Your task to perform on an android device: open a new tab in the chrome app Image 0: 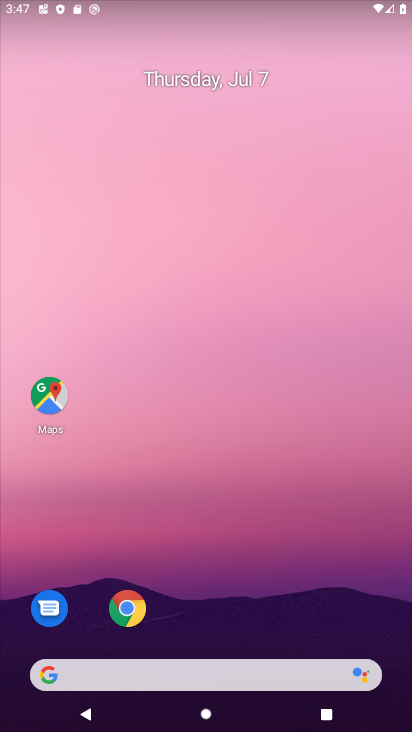
Step 0: press home button
Your task to perform on an android device: open a new tab in the chrome app Image 1: 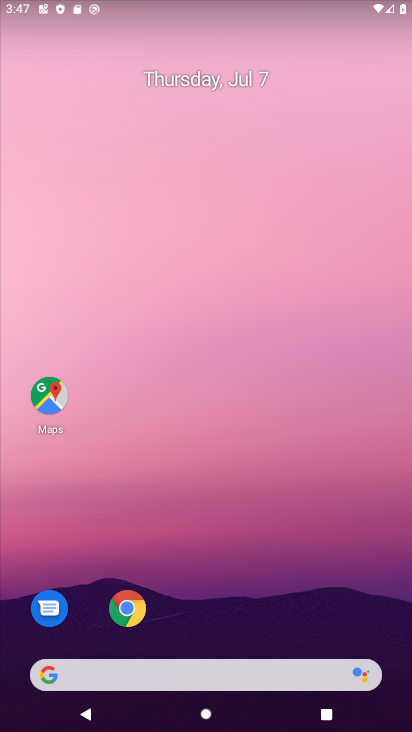
Step 1: drag from (273, 600) to (142, 163)
Your task to perform on an android device: open a new tab in the chrome app Image 2: 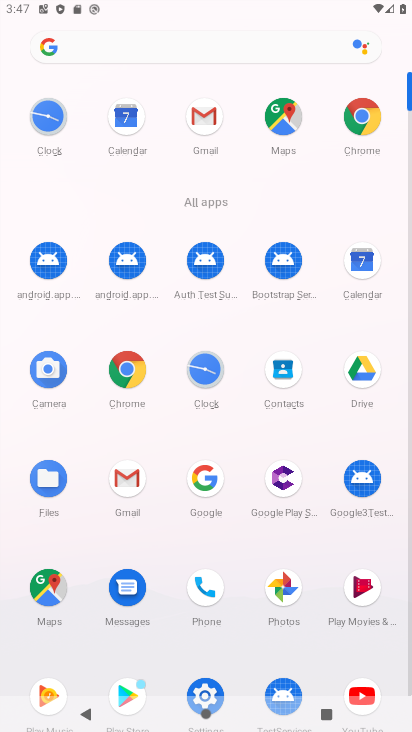
Step 2: click (364, 125)
Your task to perform on an android device: open a new tab in the chrome app Image 3: 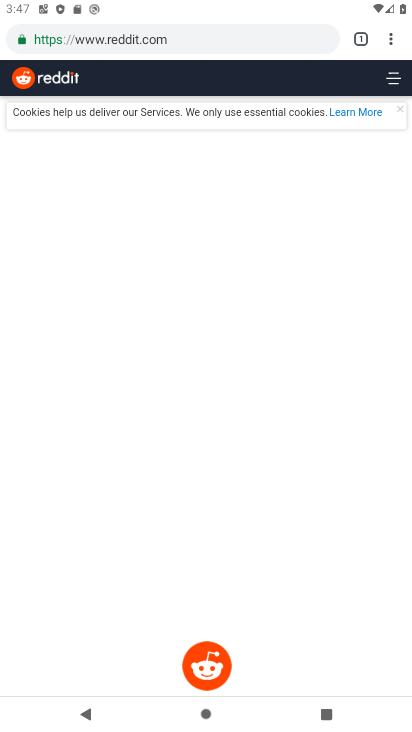
Step 3: click (395, 28)
Your task to perform on an android device: open a new tab in the chrome app Image 4: 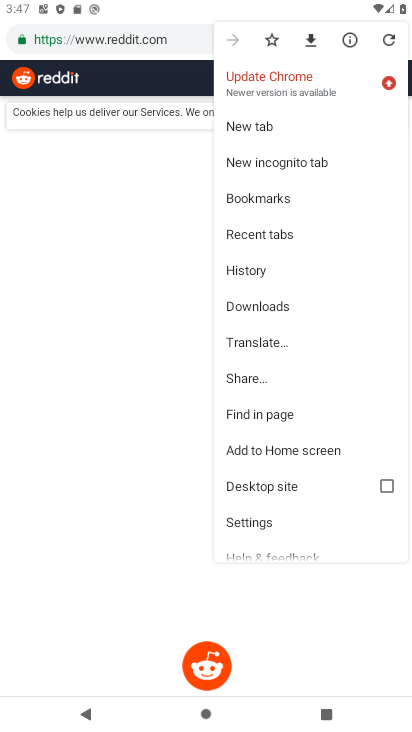
Step 4: click (294, 116)
Your task to perform on an android device: open a new tab in the chrome app Image 5: 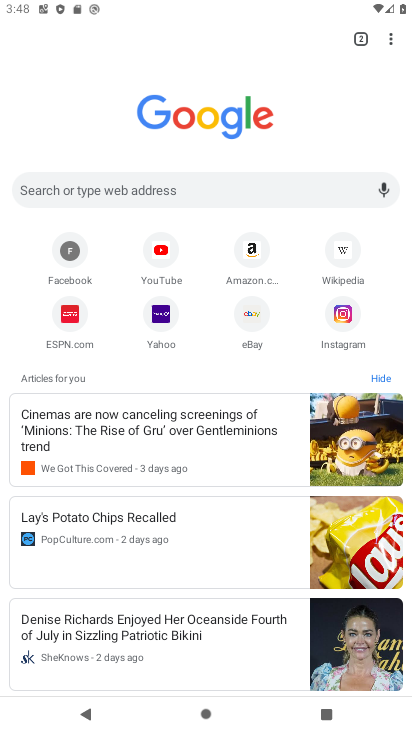
Step 5: task complete